Your task to perform on an android device: Open my contact list Image 0: 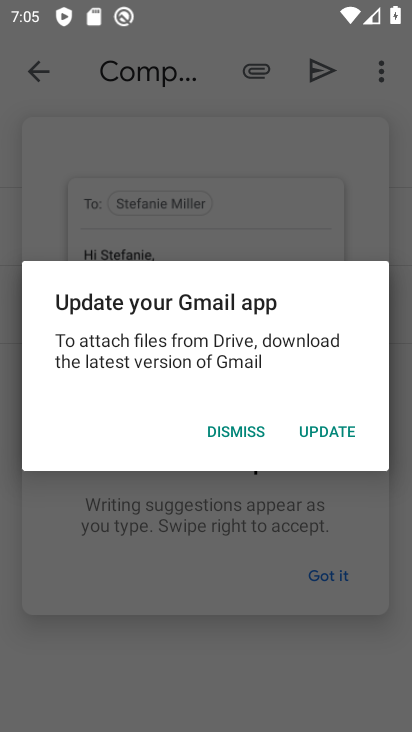
Step 0: press home button
Your task to perform on an android device: Open my contact list Image 1: 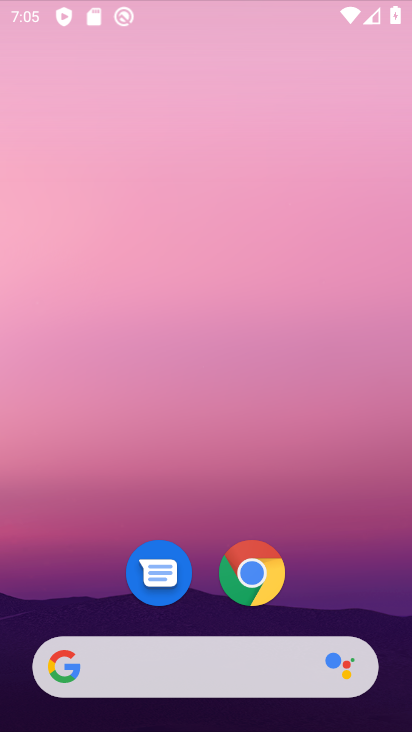
Step 1: click (402, 284)
Your task to perform on an android device: Open my contact list Image 2: 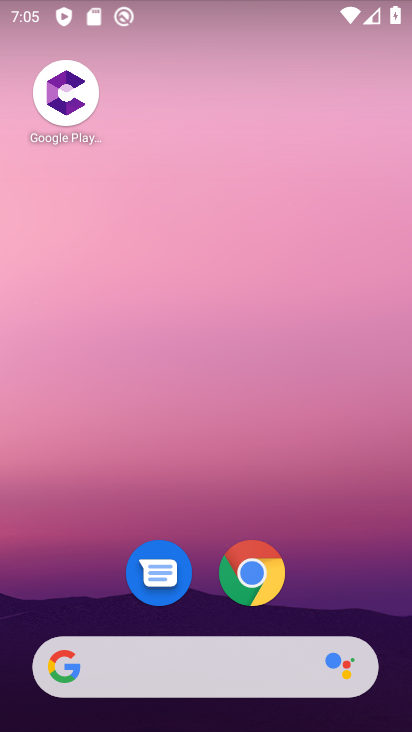
Step 2: drag from (342, 581) to (268, 6)
Your task to perform on an android device: Open my contact list Image 3: 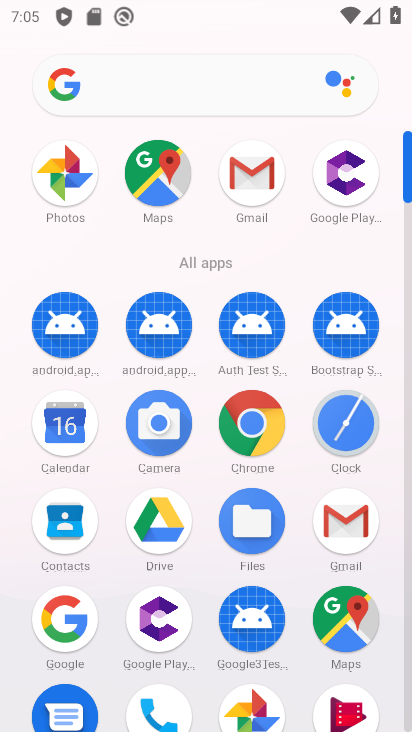
Step 3: click (64, 527)
Your task to perform on an android device: Open my contact list Image 4: 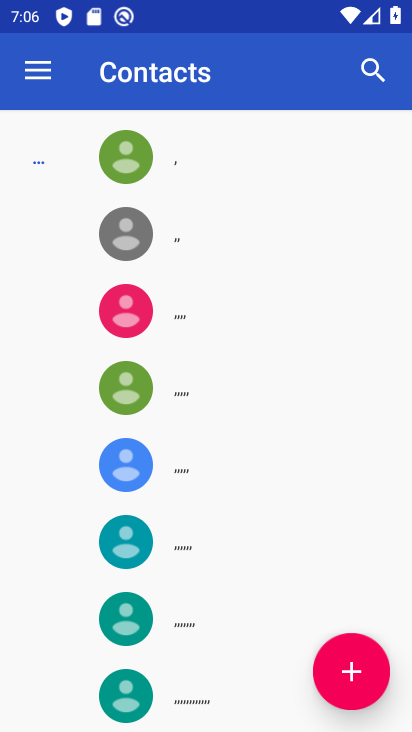
Step 4: task complete